Your task to perform on an android device: What's on my calendar tomorrow? Image 0: 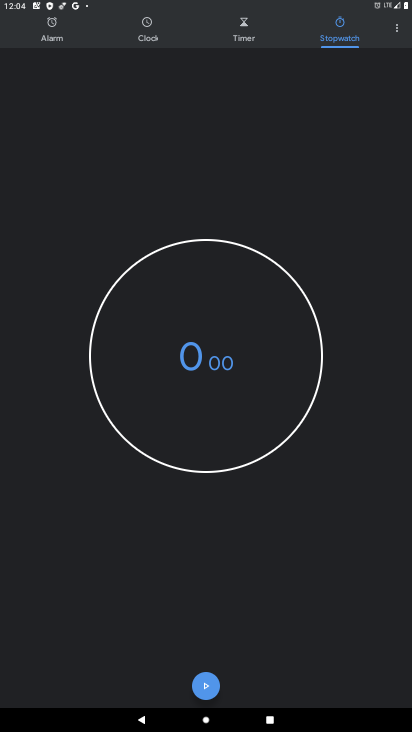
Step 0: press home button
Your task to perform on an android device: What's on my calendar tomorrow? Image 1: 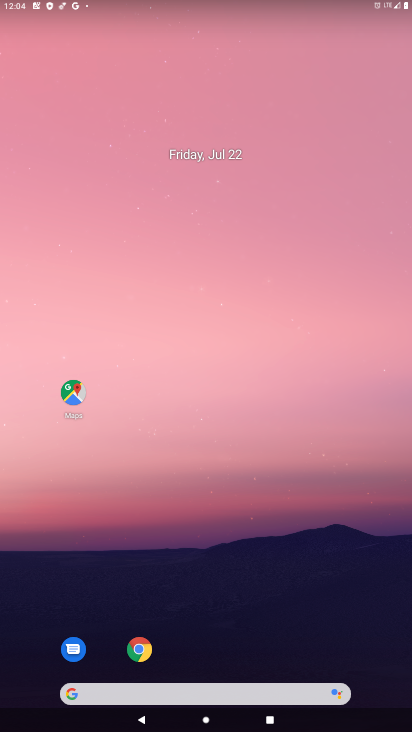
Step 1: drag from (321, 631) to (191, 72)
Your task to perform on an android device: What's on my calendar tomorrow? Image 2: 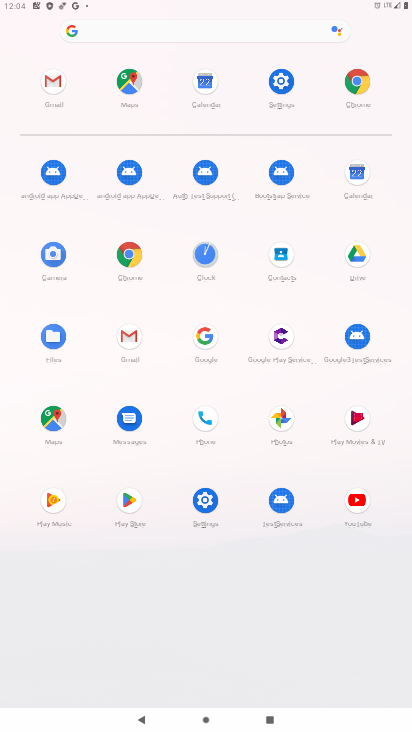
Step 2: click (356, 176)
Your task to perform on an android device: What's on my calendar tomorrow? Image 3: 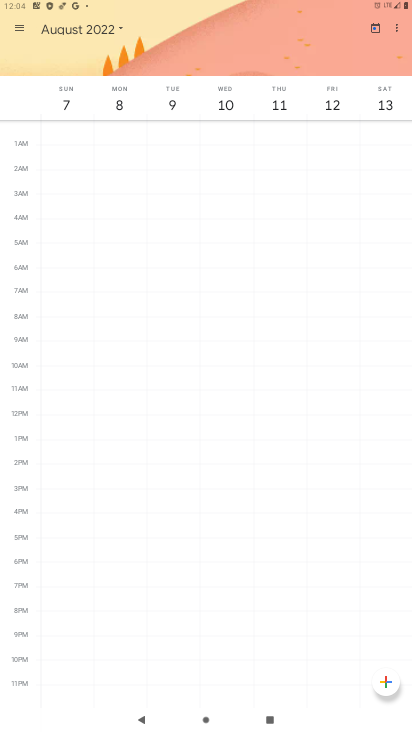
Step 3: click (65, 23)
Your task to perform on an android device: What's on my calendar tomorrow? Image 4: 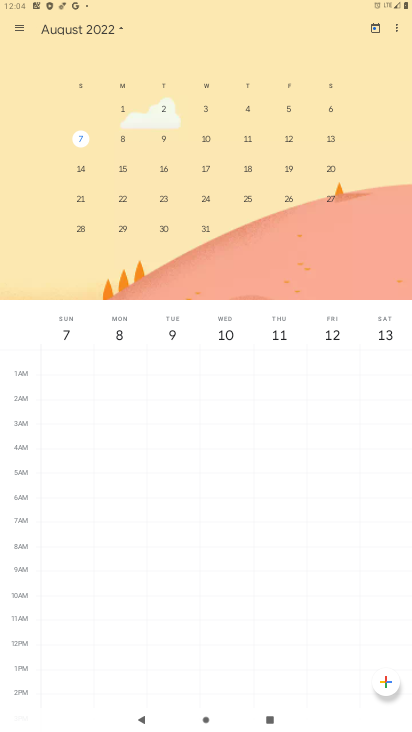
Step 4: drag from (87, 193) to (324, 183)
Your task to perform on an android device: What's on my calendar tomorrow? Image 5: 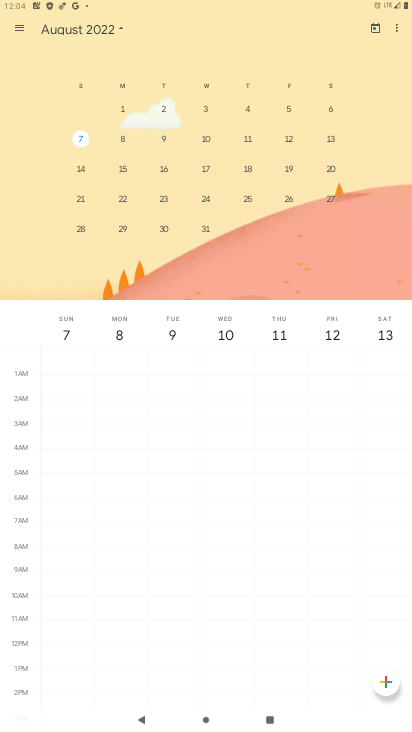
Step 5: drag from (104, 182) to (359, 145)
Your task to perform on an android device: What's on my calendar tomorrow? Image 6: 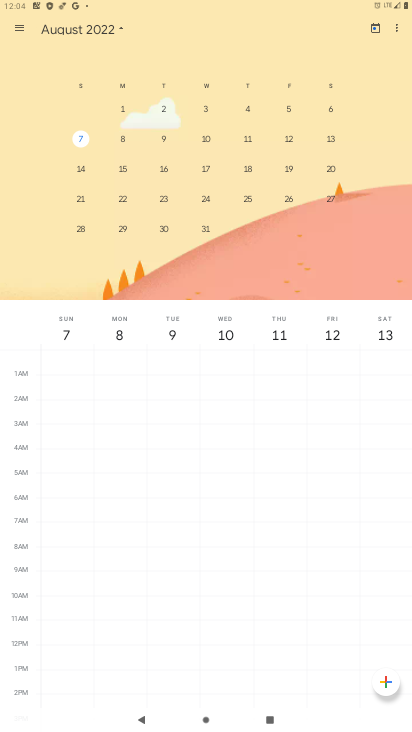
Step 6: drag from (95, 207) to (411, 158)
Your task to perform on an android device: What's on my calendar tomorrow? Image 7: 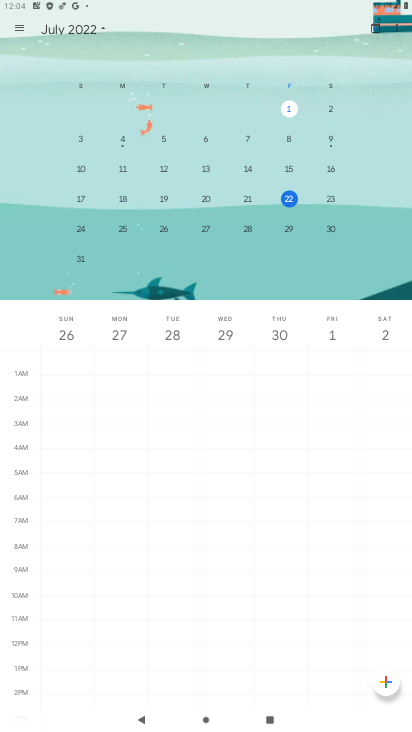
Step 7: click (325, 207)
Your task to perform on an android device: What's on my calendar tomorrow? Image 8: 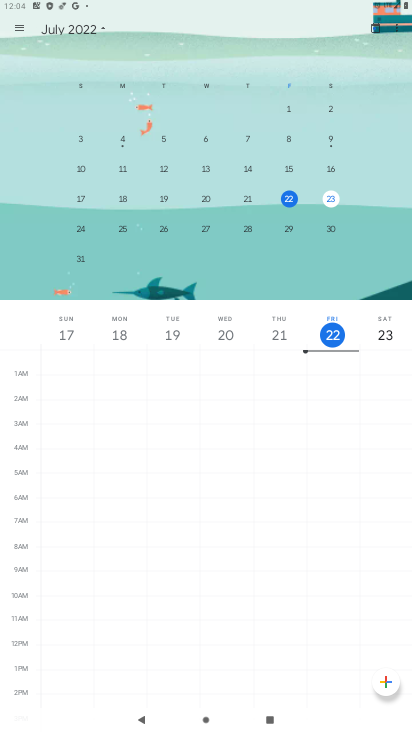
Step 8: click (392, 338)
Your task to perform on an android device: What's on my calendar tomorrow? Image 9: 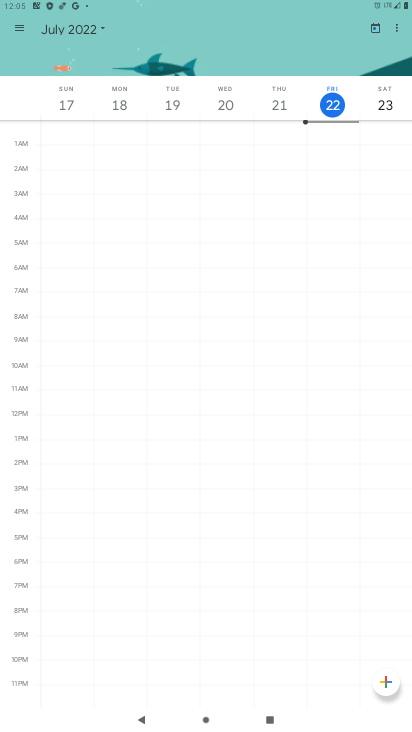
Step 9: click (381, 97)
Your task to perform on an android device: What's on my calendar tomorrow? Image 10: 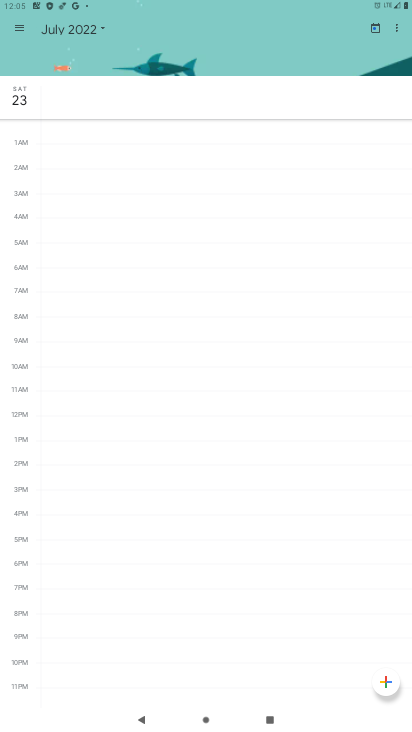
Step 10: task complete